Your task to perform on an android device: Open Reddit.com Image 0: 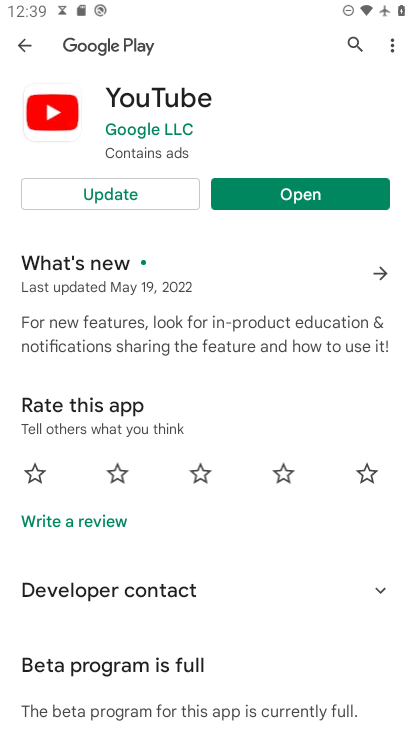
Step 0: press back button
Your task to perform on an android device: Open Reddit.com Image 1: 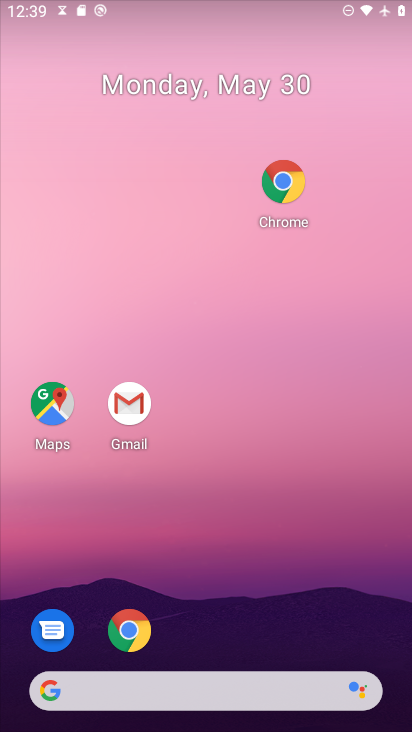
Step 1: press back button
Your task to perform on an android device: Open Reddit.com Image 2: 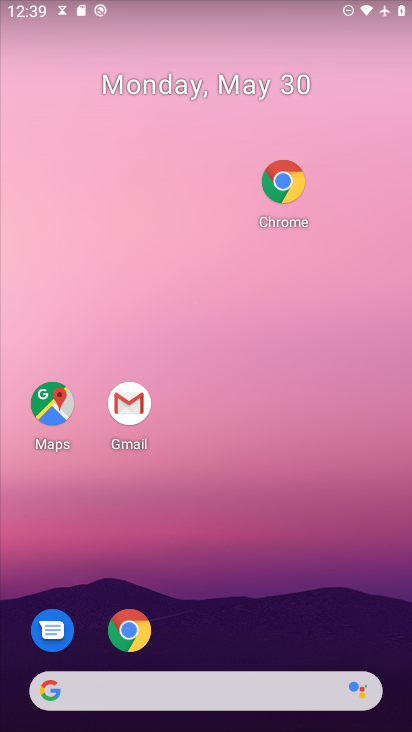
Step 2: press home button
Your task to perform on an android device: Open Reddit.com Image 3: 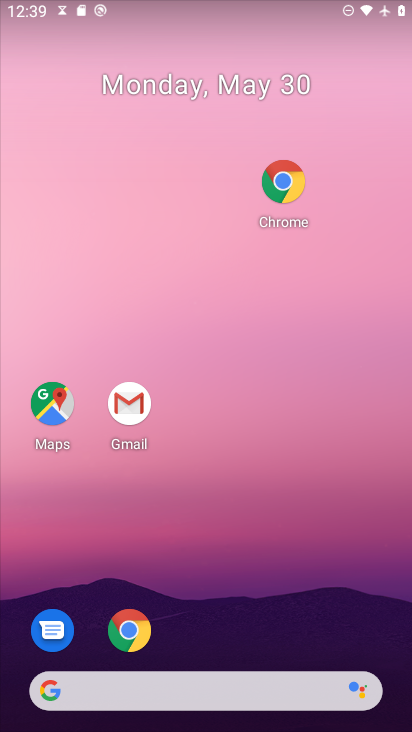
Step 3: drag from (318, 701) to (205, 170)
Your task to perform on an android device: Open Reddit.com Image 4: 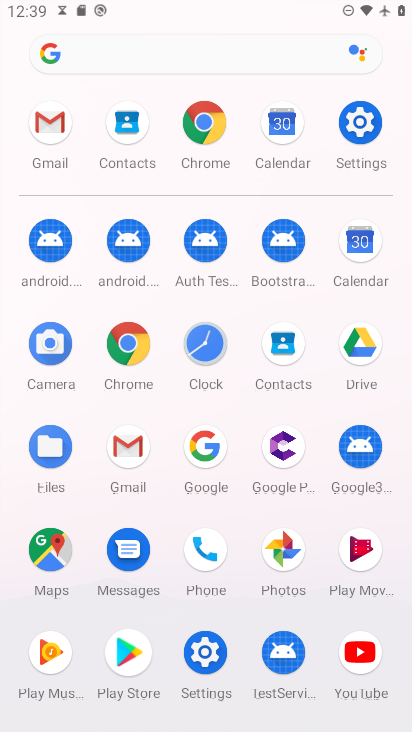
Step 4: press back button
Your task to perform on an android device: Open Reddit.com Image 5: 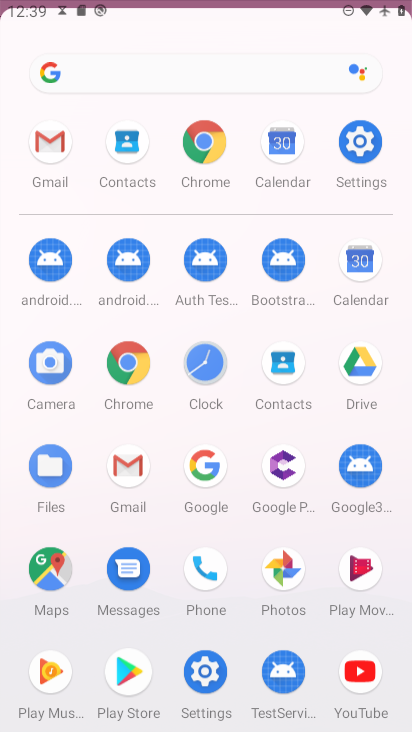
Step 5: press back button
Your task to perform on an android device: Open Reddit.com Image 6: 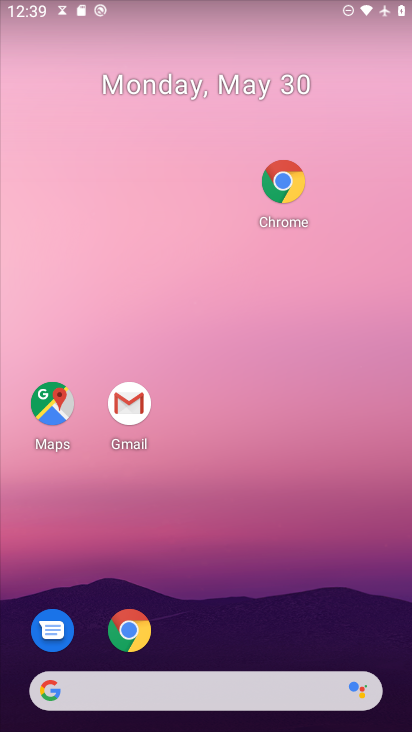
Step 6: press back button
Your task to perform on an android device: Open Reddit.com Image 7: 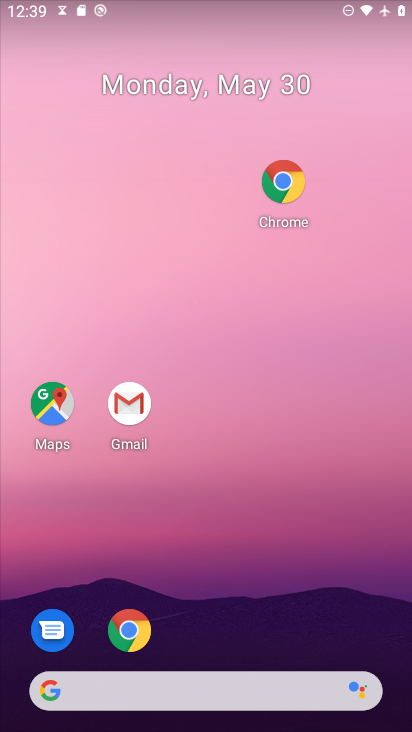
Step 7: drag from (276, 697) to (203, 169)
Your task to perform on an android device: Open Reddit.com Image 8: 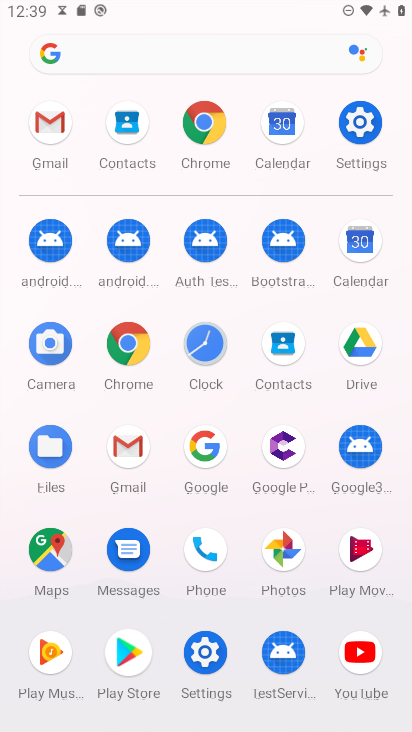
Step 8: click (205, 132)
Your task to perform on an android device: Open Reddit.com Image 9: 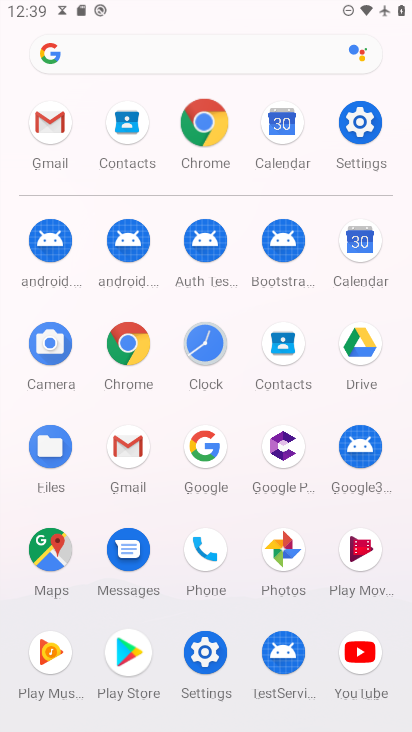
Step 9: click (205, 132)
Your task to perform on an android device: Open Reddit.com Image 10: 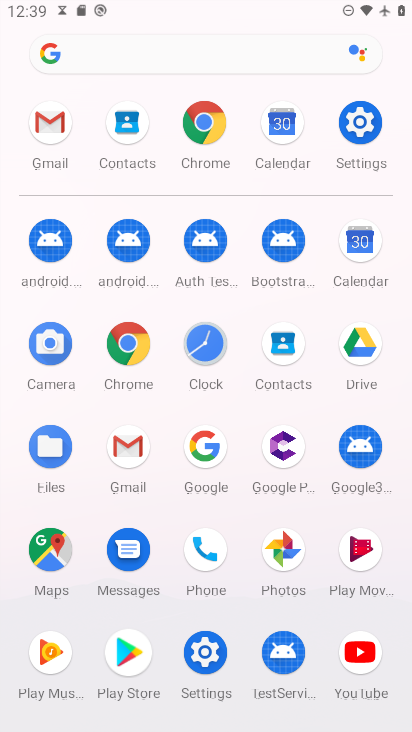
Step 10: click (205, 132)
Your task to perform on an android device: Open Reddit.com Image 11: 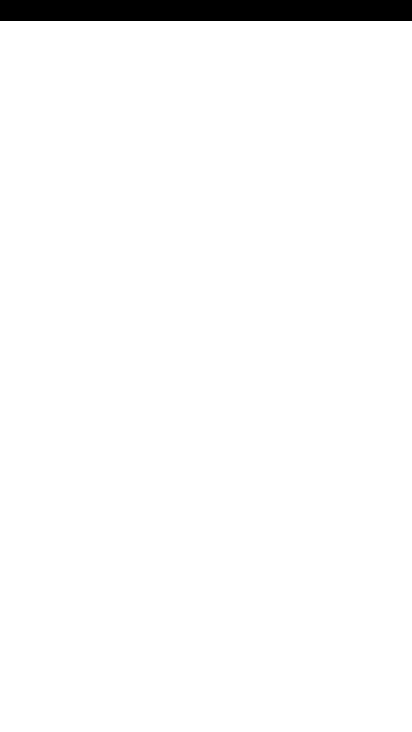
Step 11: click (211, 134)
Your task to perform on an android device: Open Reddit.com Image 12: 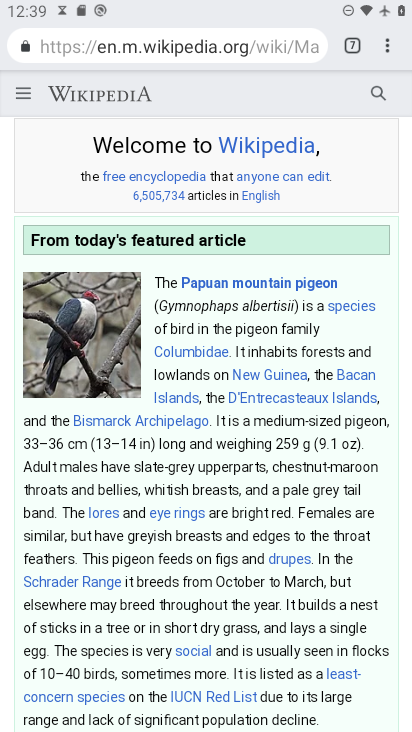
Step 12: click (382, 42)
Your task to perform on an android device: Open Reddit.com Image 13: 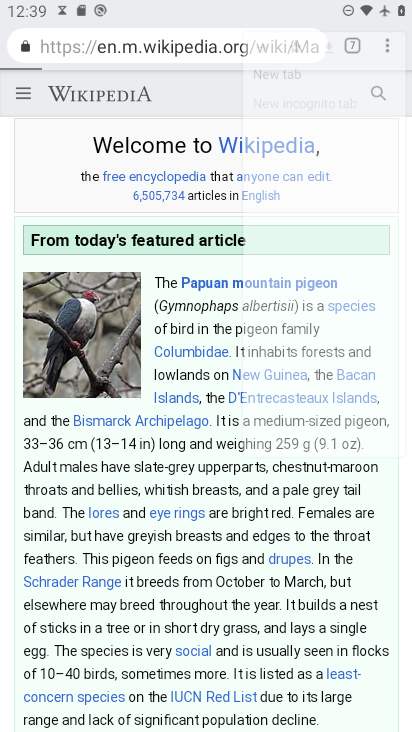
Step 13: click (398, 41)
Your task to perform on an android device: Open Reddit.com Image 14: 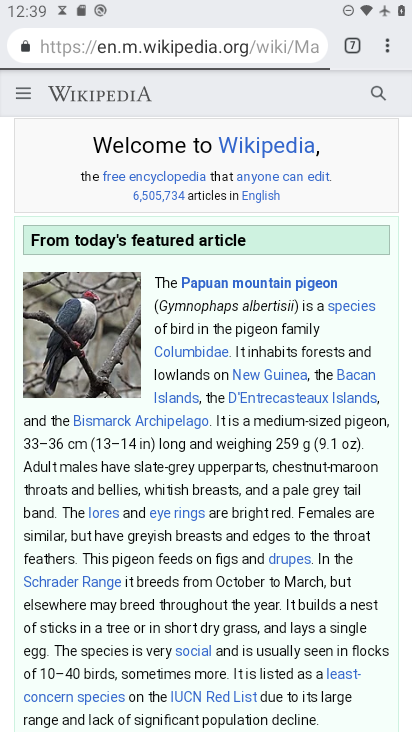
Step 14: click (402, 42)
Your task to perform on an android device: Open Reddit.com Image 15: 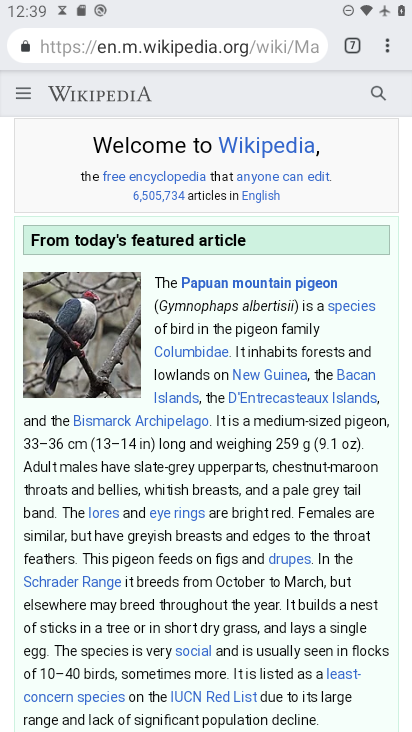
Step 15: drag from (387, 44) to (232, 96)
Your task to perform on an android device: Open Reddit.com Image 16: 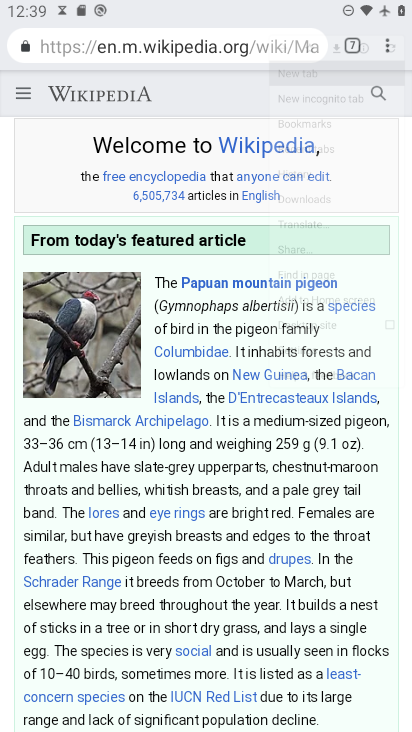
Step 16: click (249, 91)
Your task to perform on an android device: Open Reddit.com Image 17: 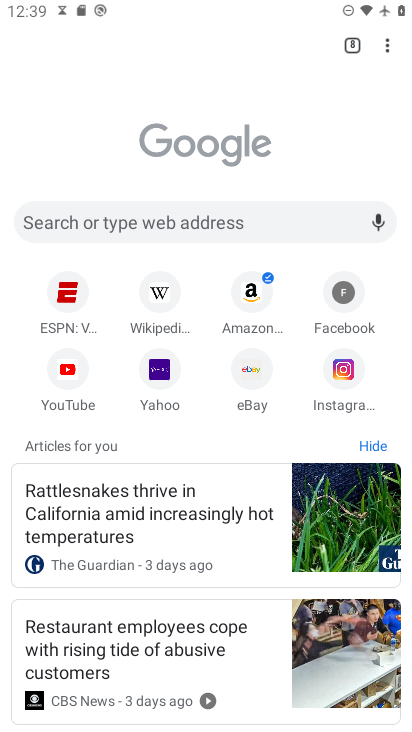
Step 17: click (51, 225)
Your task to perform on an android device: Open Reddit.com Image 18: 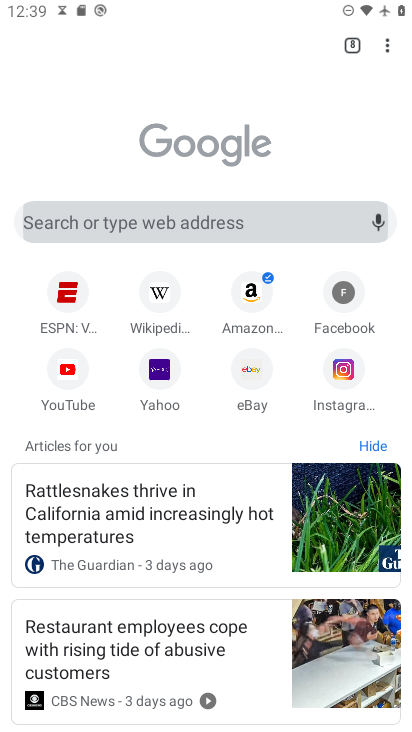
Step 18: click (63, 216)
Your task to perform on an android device: Open Reddit.com Image 19: 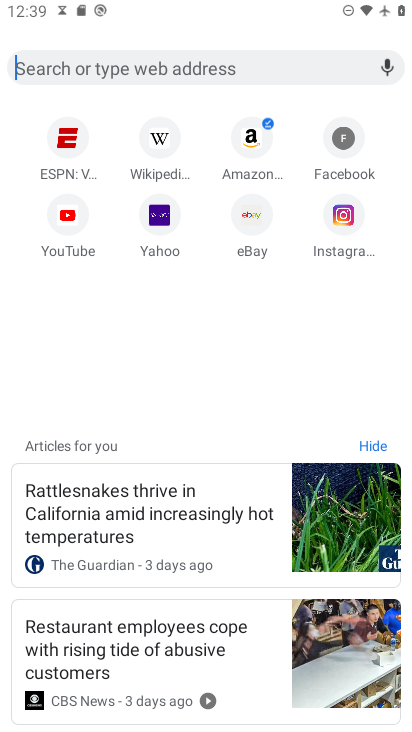
Step 19: click (63, 216)
Your task to perform on an android device: Open Reddit.com Image 20: 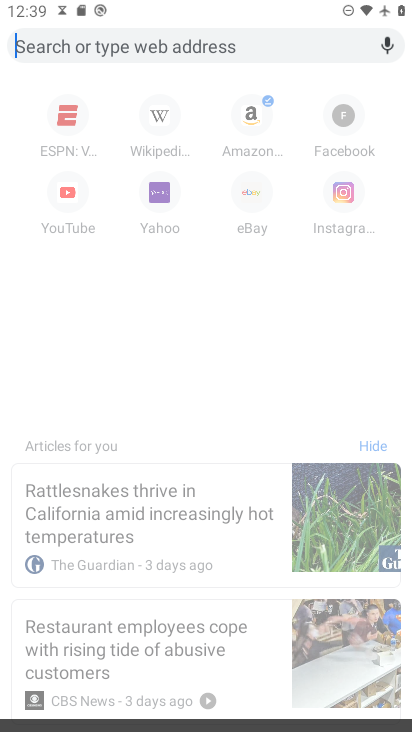
Step 20: click (63, 216)
Your task to perform on an android device: Open Reddit.com Image 21: 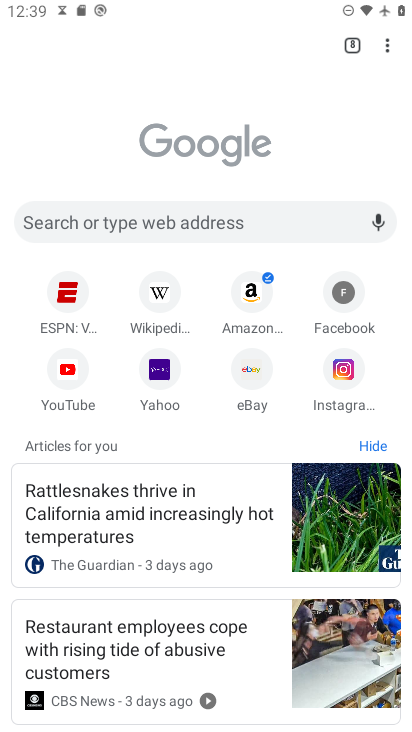
Step 21: click (45, 215)
Your task to perform on an android device: Open Reddit.com Image 22: 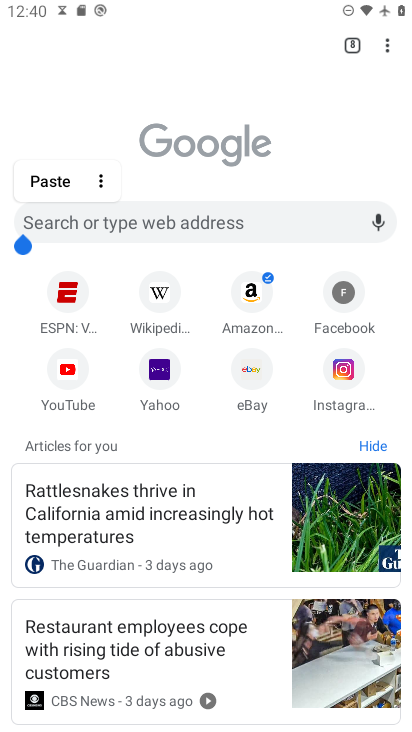
Step 22: click (38, 215)
Your task to perform on an android device: Open Reddit.com Image 23: 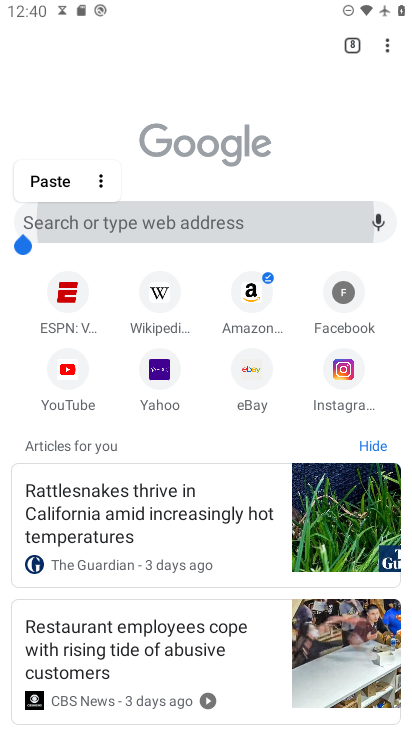
Step 23: click (38, 215)
Your task to perform on an android device: Open Reddit.com Image 24: 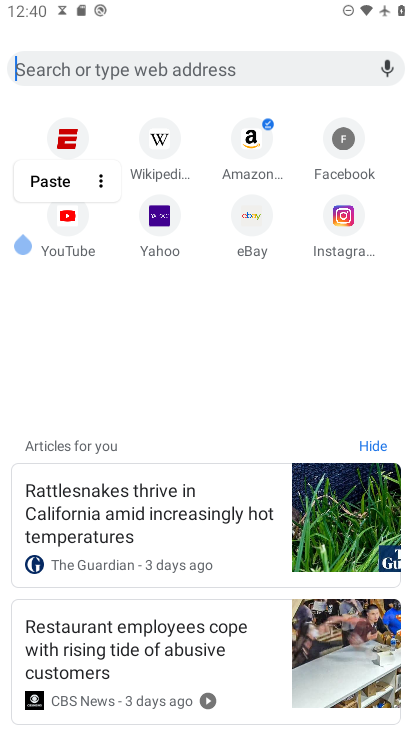
Step 24: click (38, 215)
Your task to perform on an android device: Open Reddit.com Image 25: 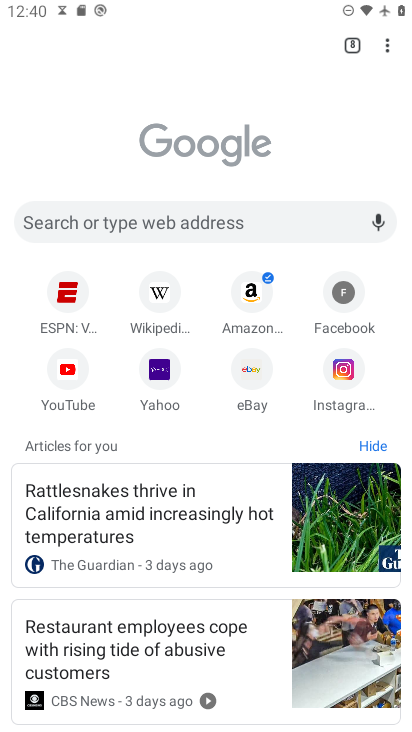
Step 25: click (34, 224)
Your task to perform on an android device: Open Reddit.com Image 26: 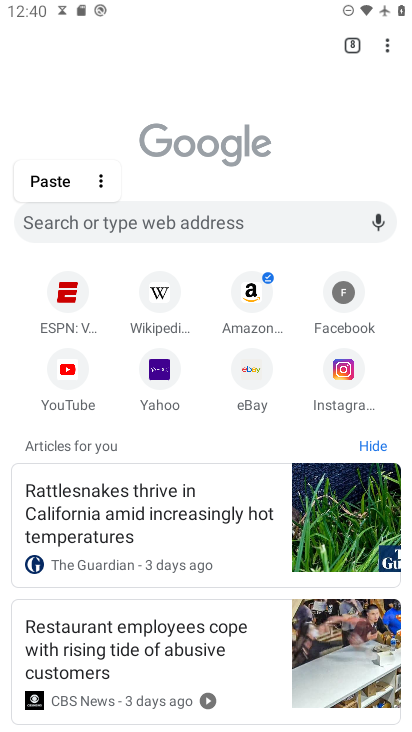
Step 26: type "reddit.com"
Your task to perform on an android device: Open Reddit.com Image 27: 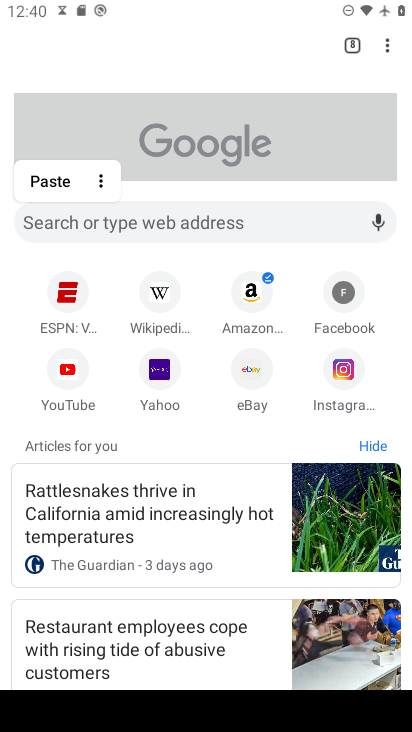
Step 27: click (52, 213)
Your task to perform on an android device: Open Reddit.com Image 28: 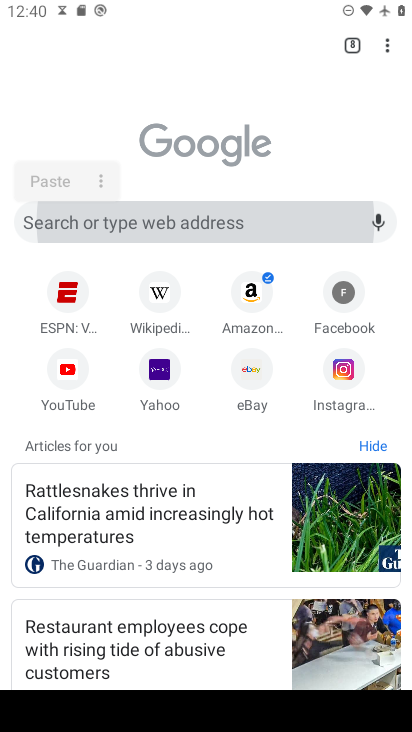
Step 28: click (38, 225)
Your task to perform on an android device: Open Reddit.com Image 29: 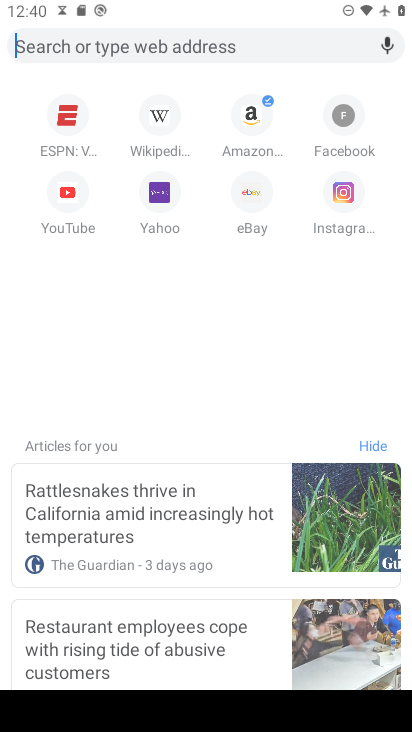
Step 29: click (36, 227)
Your task to perform on an android device: Open Reddit.com Image 30: 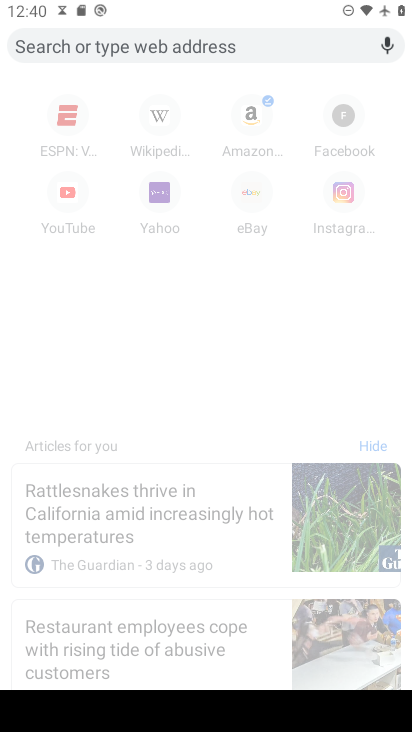
Step 30: click (43, 222)
Your task to perform on an android device: Open Reddit.com Image 31: 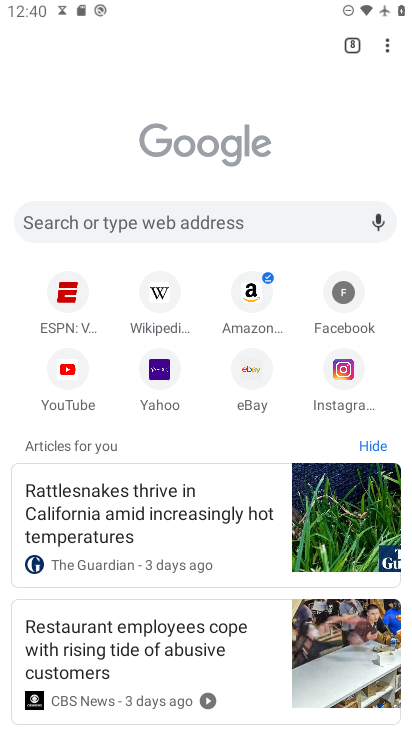
Step 31: click (44, 213)
Your task to perform on an android device: Open Reddit.com Image 32: 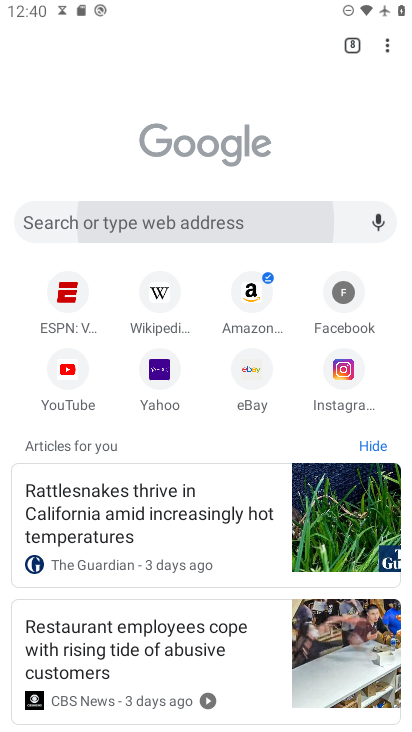
Step 32: click (44, 213)
Your task to perform on an android device: Open Reddit.com Image 33: 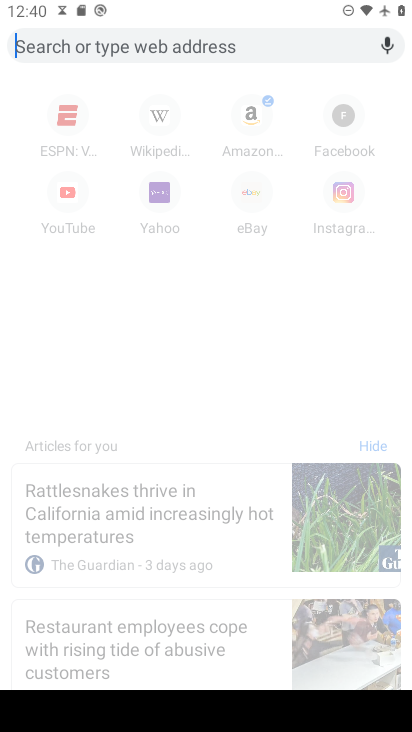
Step 33: type "reddit.com"
Your task to perform on an android device: Open Reddit.com Image 34: 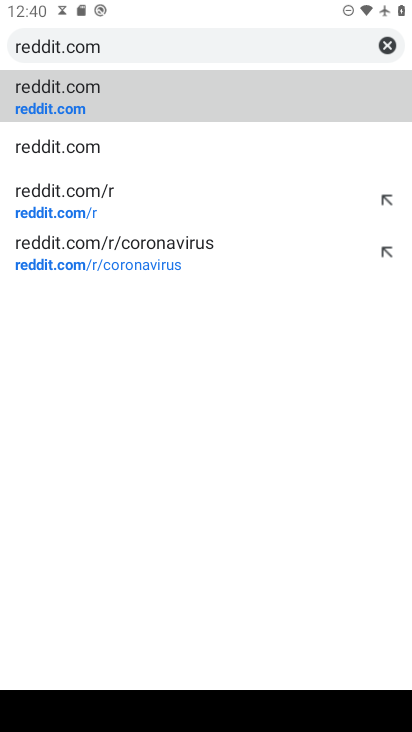
Step 34: click (30, 106)
Your task to perform on an android device: Open Reddit.com Image 35: 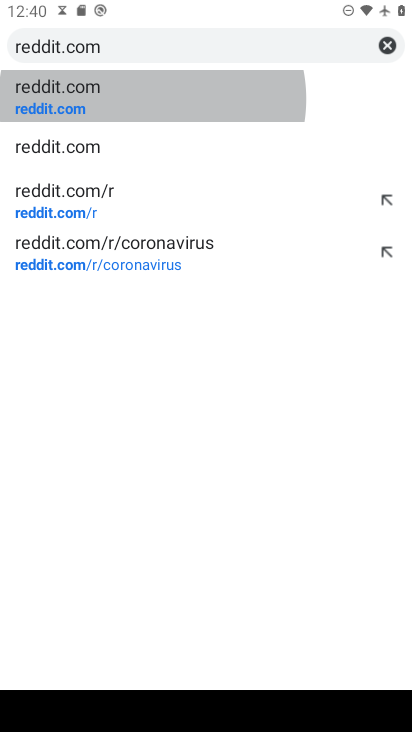
Step 35: click (35, 95)
Your task to perform on an android device: Open Reddit.com Image 36: 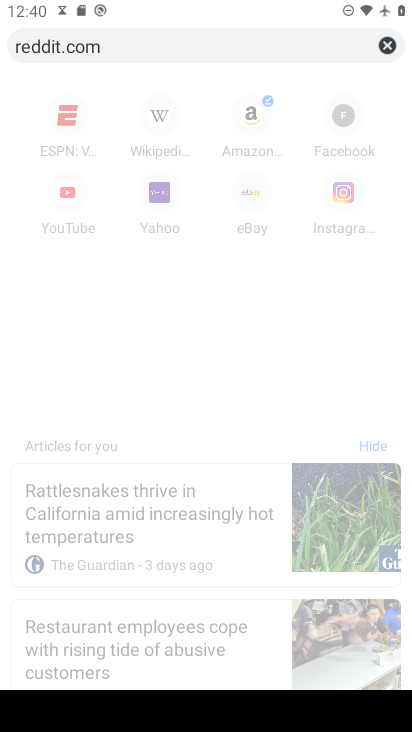
Step 36: click (35, 95)
Your task to perform on an android device: Open Reddit.com Image 37: 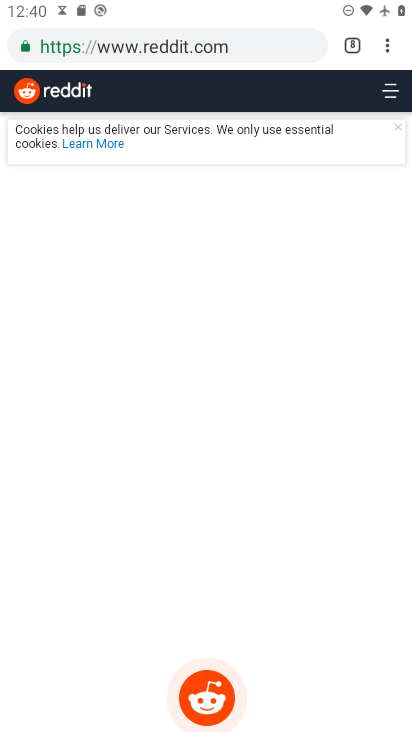
Step 37: task complete